Your task to perform on an android device: What's the weather going to be this weekend? Image 0: 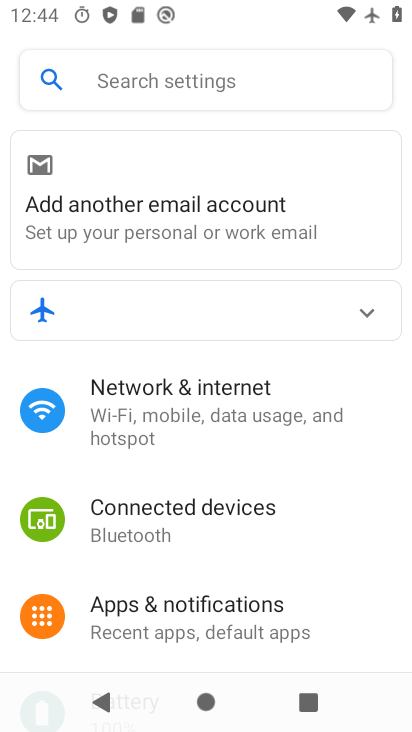
Step 0: press home button
Your task to perform on an android device: What's the weather going to be this weekend? Image 1: 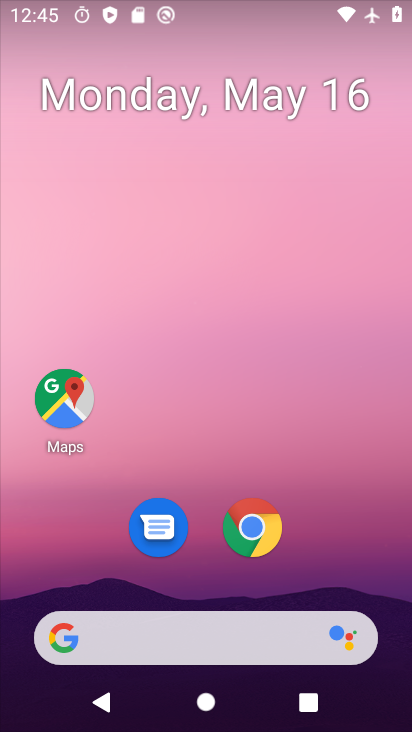
Step 1: click (71, 637)
Your task to perform on an android device: What's the weather going to be this weekend? Image 2: 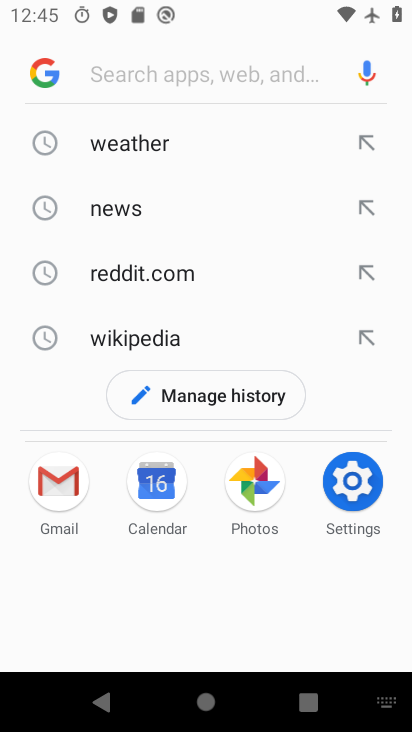
Step 2: click (132, 140)
Your task to perform on an android device: What's the weather going to be this weekend? Image 3: 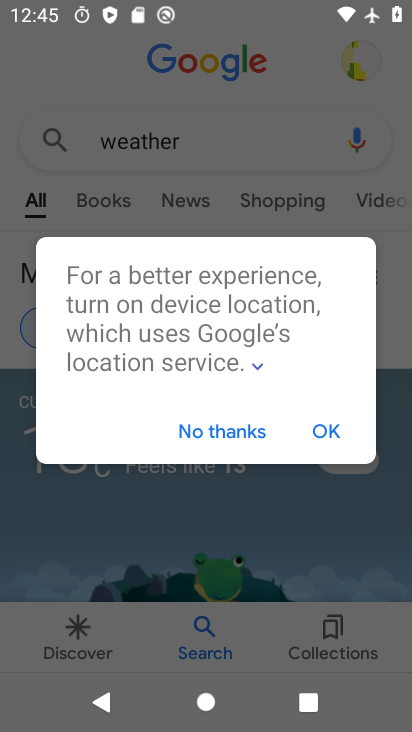
Step 3: click (327, 438)
Your task to perform on an android device: What's the weather going to be this weekend? Image 4: 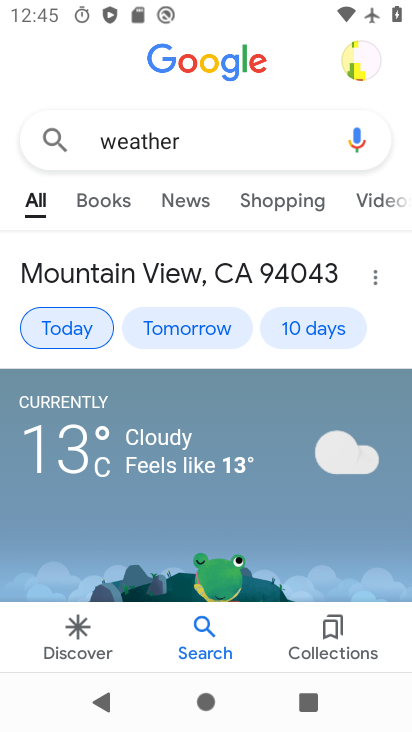
Step 4: click (315, 328)
Your task to perform on an android device: What's the weather going to be this weekend? Image 5: 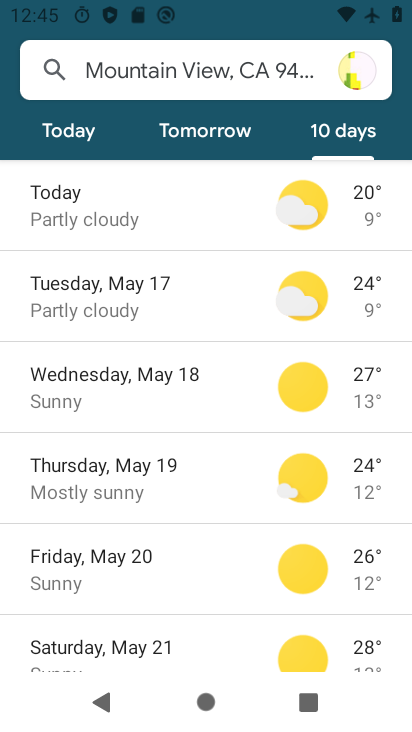
Step 5: drag from (145, 598) to (215, 391)
Your task to perform on an android device: What's the weather going to be this weekend? Image 6: 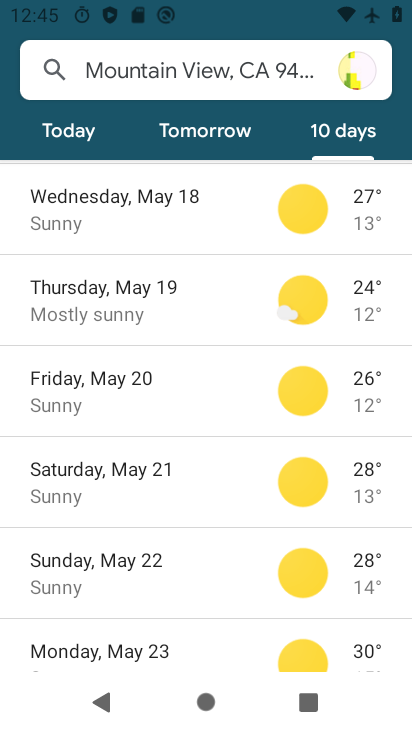
Step 6: click (136, 480)
Your task to perform on an android device: What's the weather going to be this weekend? Image 7: 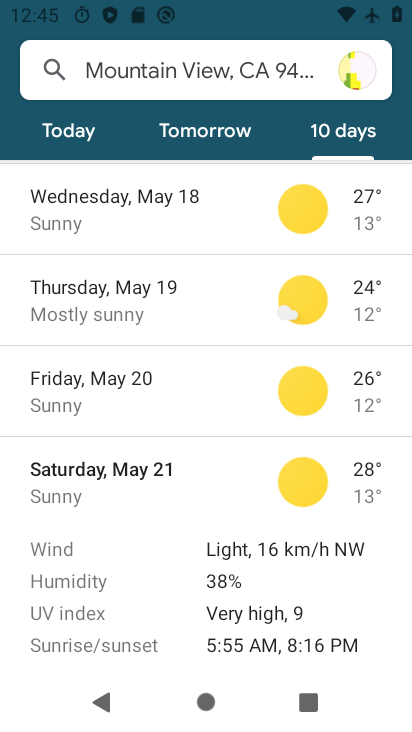
Step 7: task complete